Your task to perform on an android device: search for starred emails in the gmail app Image 0: 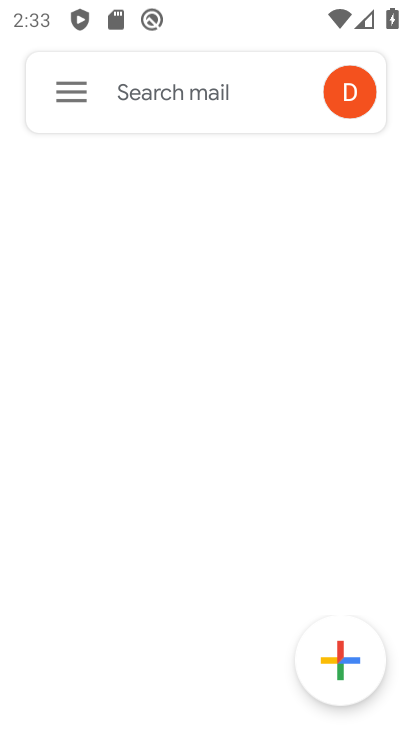
Step 0: press home button
Your task to perform on an android device: search for starred emails in the gmail app Image 1: 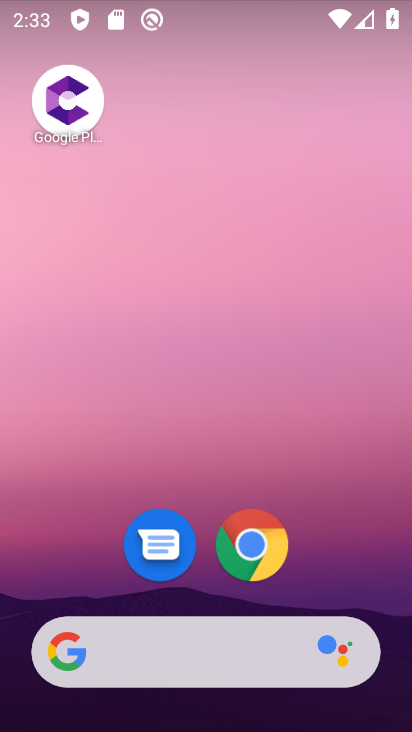
Step 1: drag from (195, 645) to (279, 172)
Your task to perform on an android device: search for starred emails in the gmail app Image 2: 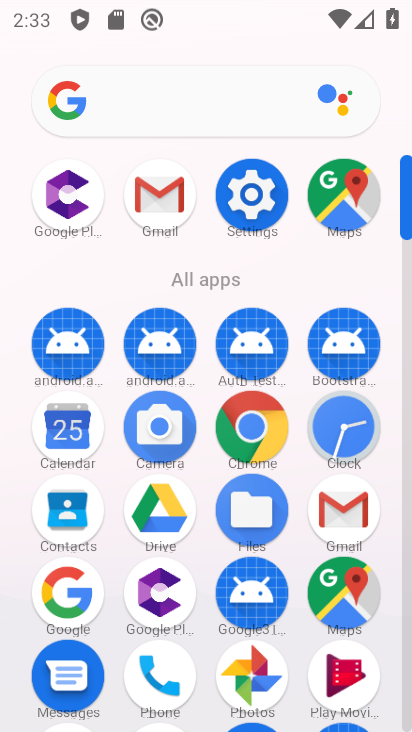
Step 2: click (336, 501)
Your task to perform on an android device: search for starred emails in the gmail app Image 3: 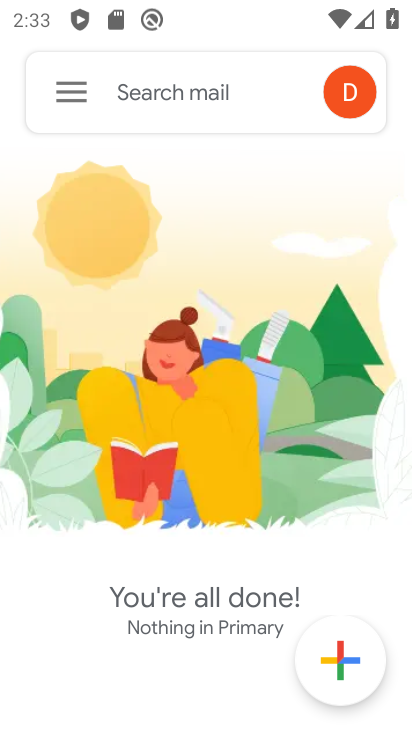
Step 3: click (71, 92)
Your task to perform on an android device: search for starred emails in the gmail app Image 4: 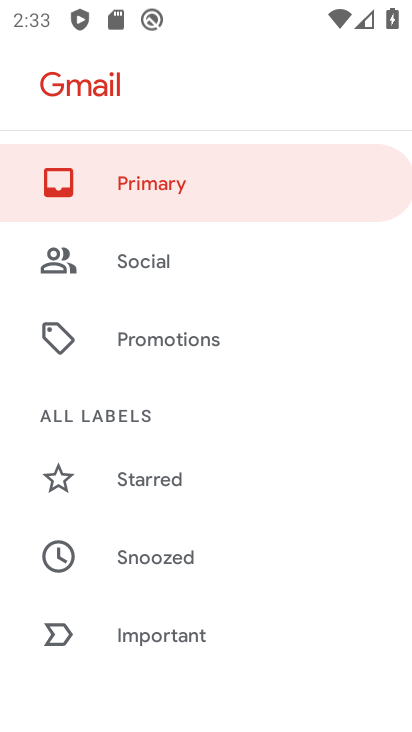
Step 4: click (153, 483)
Your task to perform on an android device: search for starred emails in the gmail app Image 5: 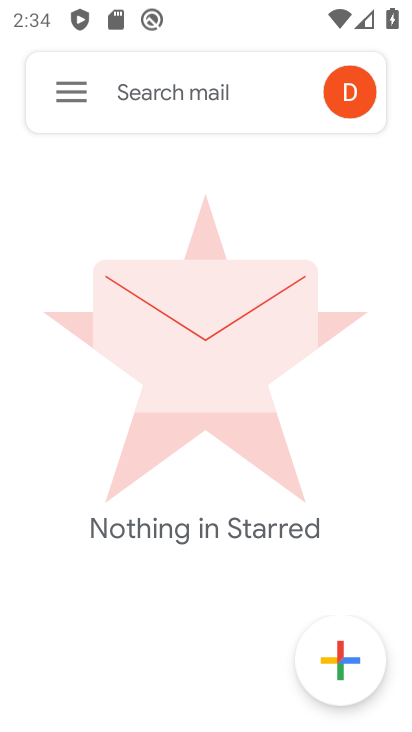
Step 5: task complete